Your task to perform on an android device: Is it going to rain this weekend? Image 0: 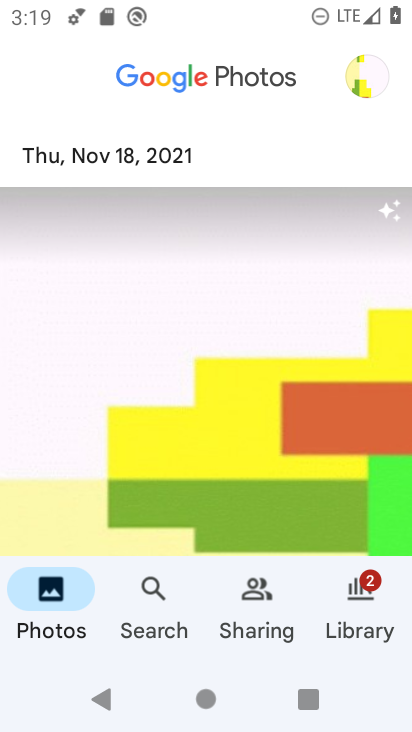
Step 0: press home button
Your task to perform on an android device: Is it going to rain this weekend? Image 1: 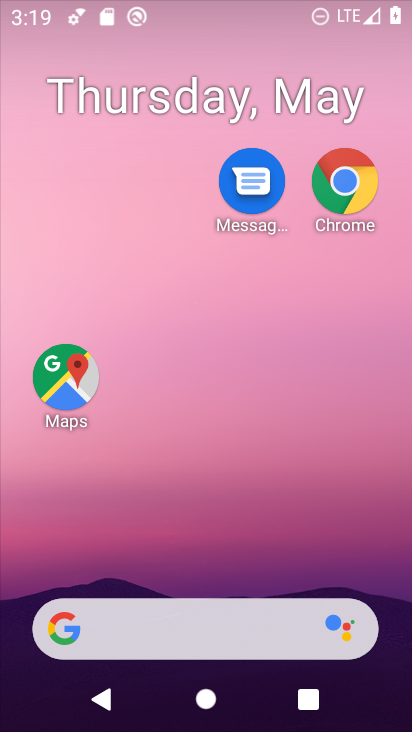
Step 1: drag from (206, 648) to (253, 1)
Your task to perform on an android device: Is it going to rain this weekend? Image 2: 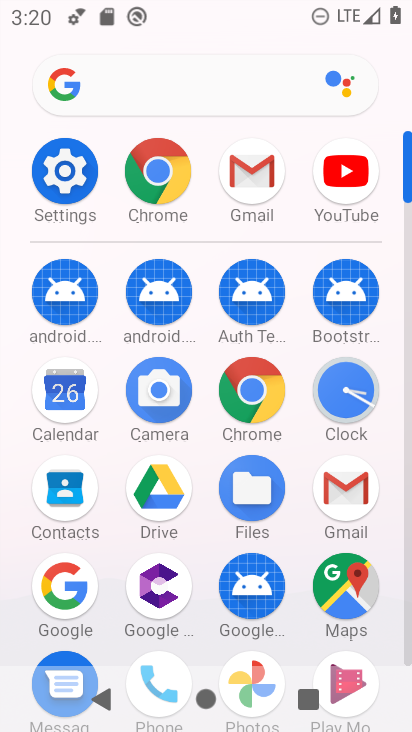
Step 2: press home button
Your task to perform on an android device: Is it going to rain this weekend? Image 3: 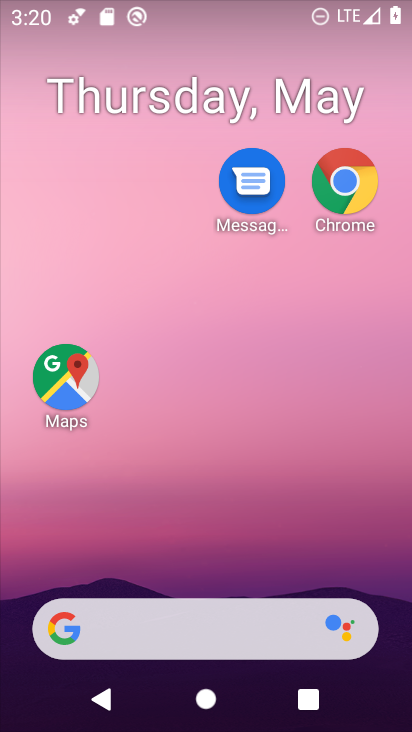
Step 3: drag from (37, 295) to (410, 321)
Your task to perform on an android device: Is it going to rain this weekend? Image 4: 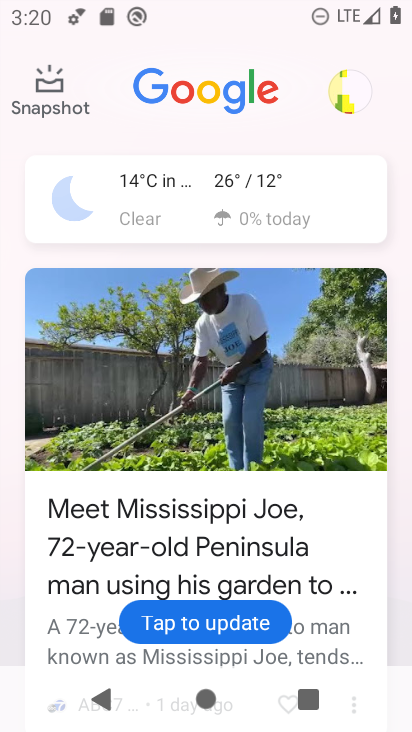
Step 4: click (234, 200)
Your task to perform on an android device: Is it going to rain this weekend? Image 5: 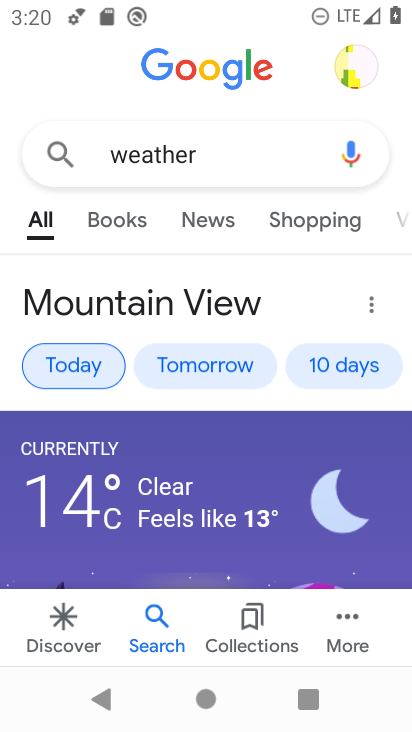
Step 5: click (243, 359)
Your task to perform on an android device: Is it going to rain this weekend? Image 6: 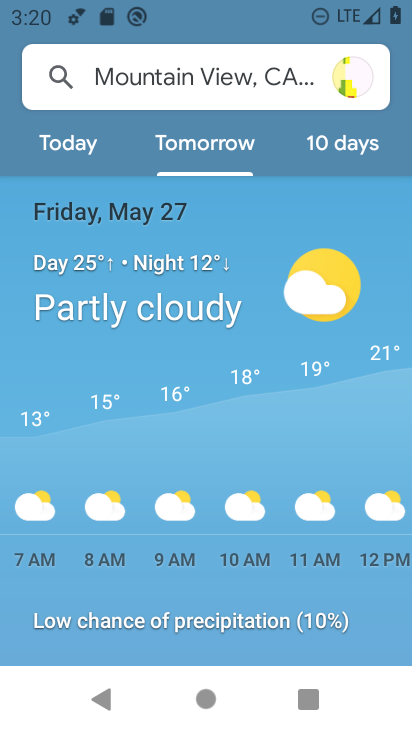
Step 6: click (357, 147)
Your task to perform on an android device: Is it going to rain this weekend? Image 7: 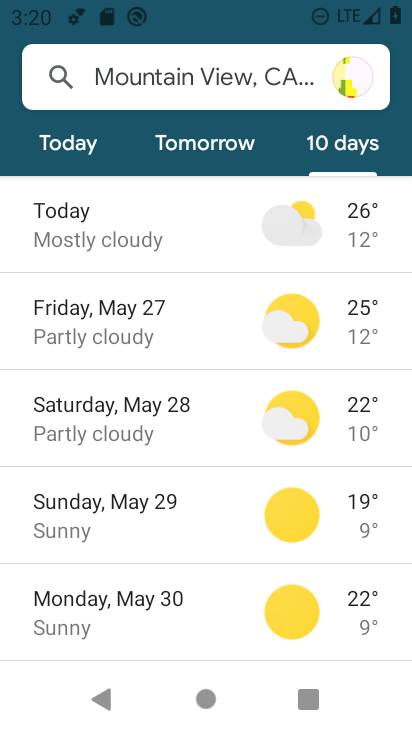
Step 7: task complete